Your task to perform on an android device: Go to Android settings Image 0: 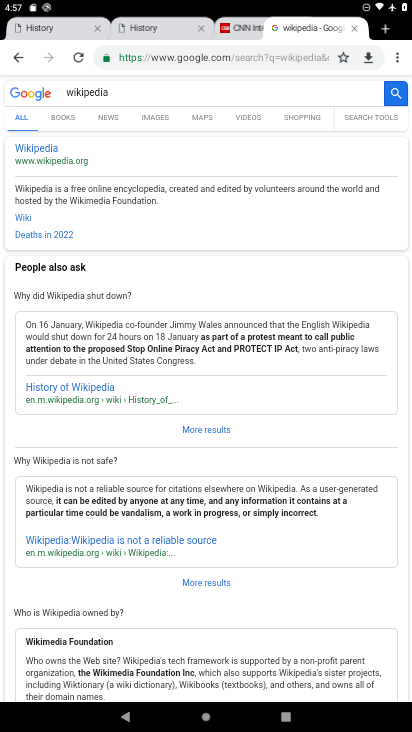
Step 0: press home button
Your task to perform on an android device: Go to Android settings Image 1: 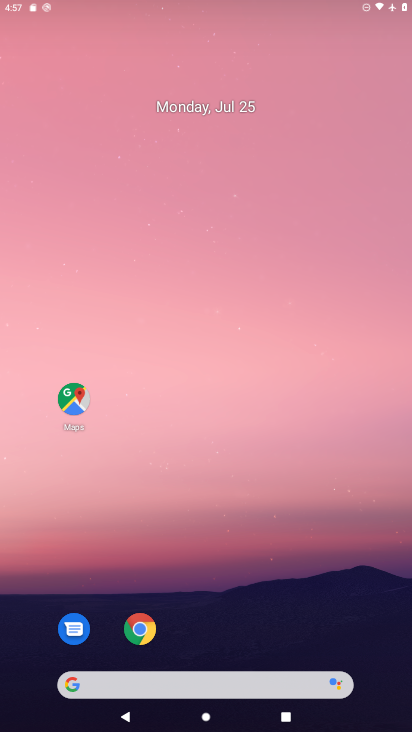
Step 1: drag from (175, 592) to (207, 40)
Your task to perform on an android device: Go to Android settings Image 2: 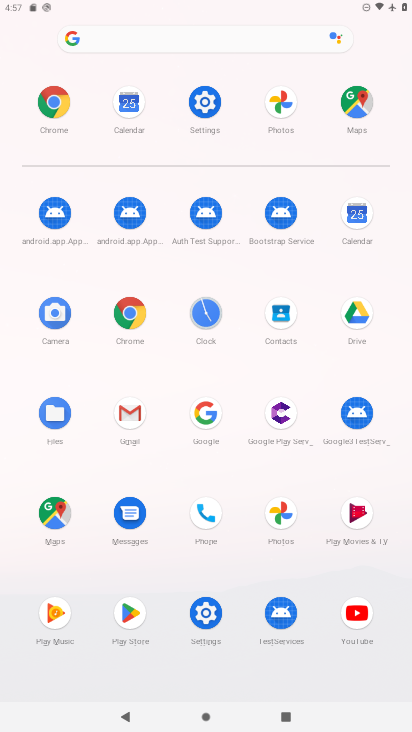
Step 2: click (206, 98)
Your task to perform on an android device: Go to Android settings Image 3: 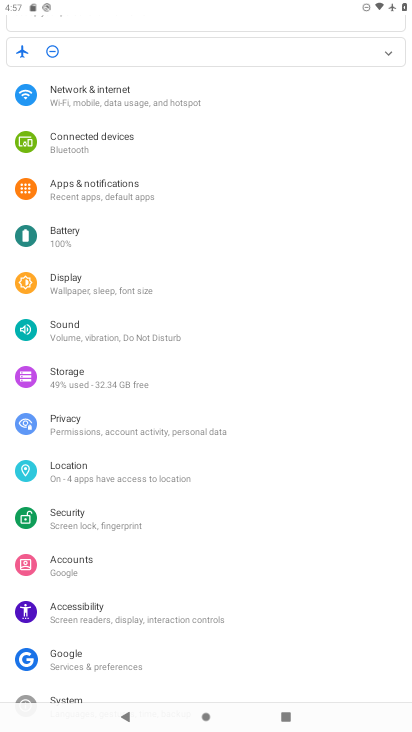
Step 3: drag from (113, 682) to (140, 366)
Your task to perform on an android device: Go to Android settings Image 4: 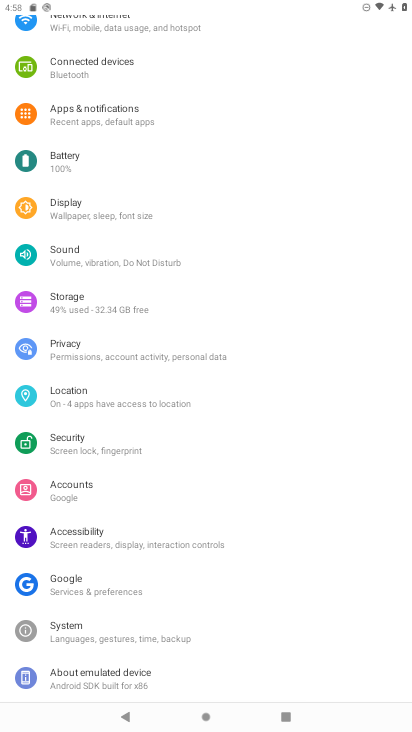
Step 4: drag from (192, 653) to (276, 28)
Your task to perform on an android device: Go to Android settings Image 5: 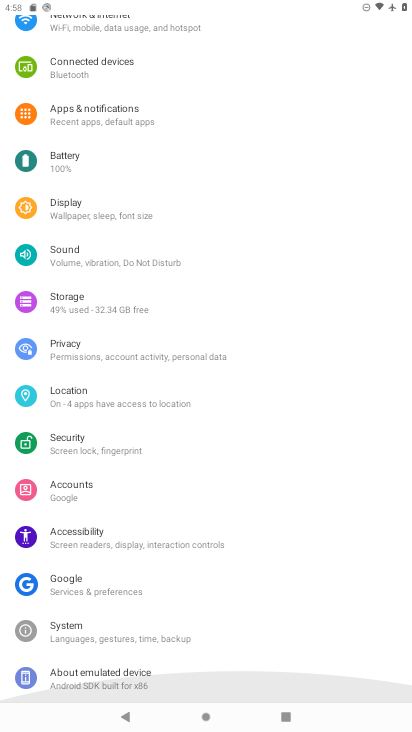
Step 5: click (135, 689)
Your task to perform on an android device: Go to Android settings Image 6: 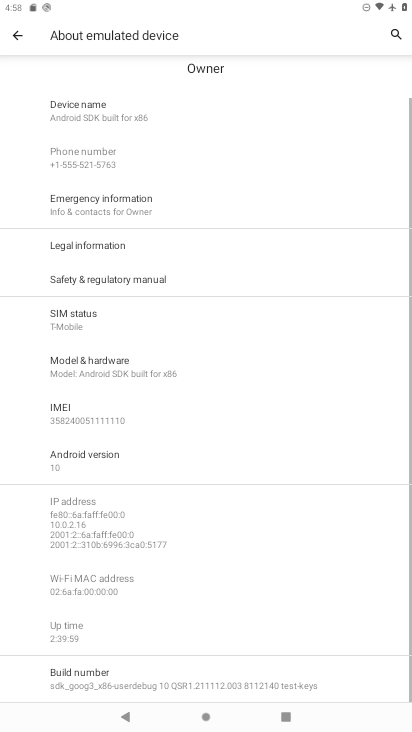
Step 6: click (117, 446)
Your task to perform on an android device: Go to Android settings Image 7: 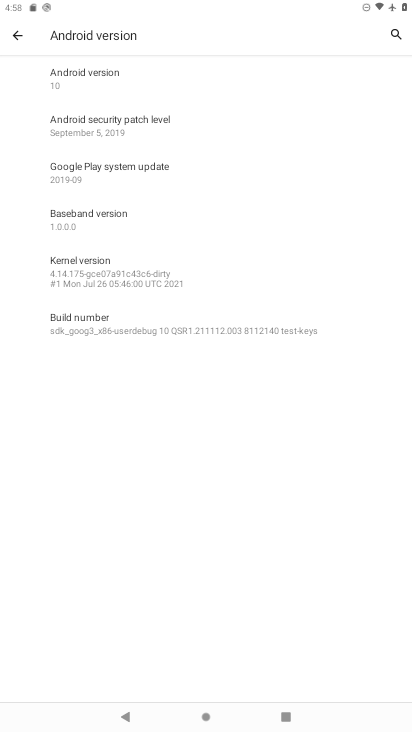
Step 7: task complete